Your task to perform on an android device: toggle sleep mode Image 0: 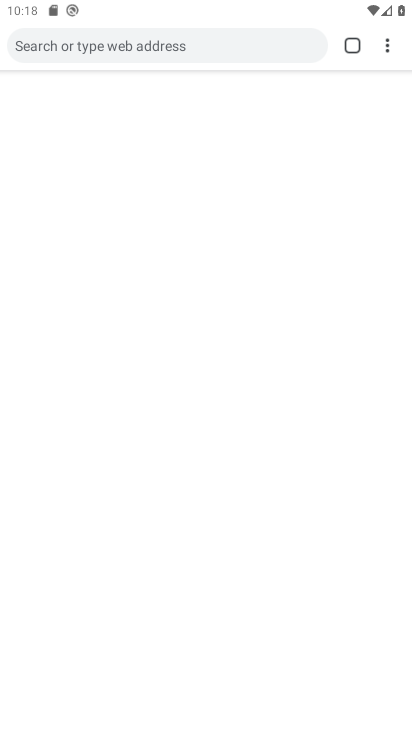
Step 0: press home button
Your task to perform on an android device: toggle sleep mode Image 1: 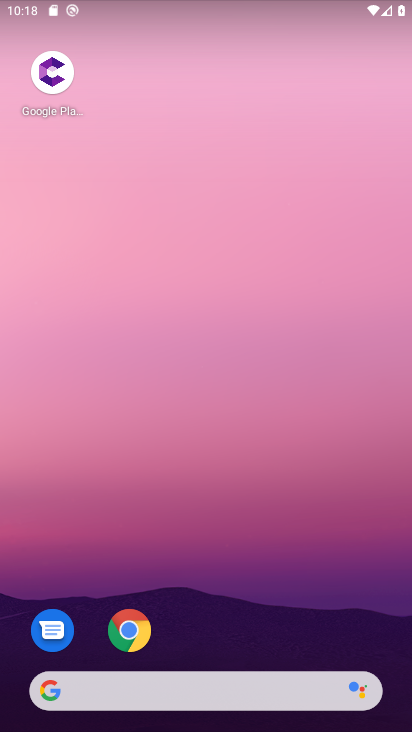
Step 1: drag from (199, 660) to (171, 69)
Your task to perform on an android device: toggle sleep mode Image 2: 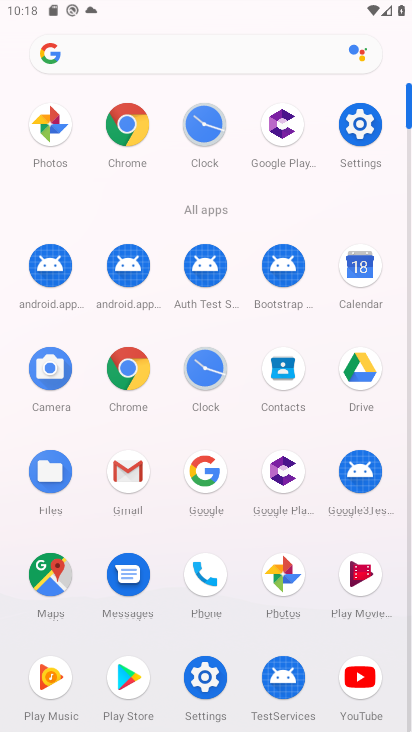
Step 2: click (369, 134)
Your task to perform on an android device: toggle sleep mode Image 3: 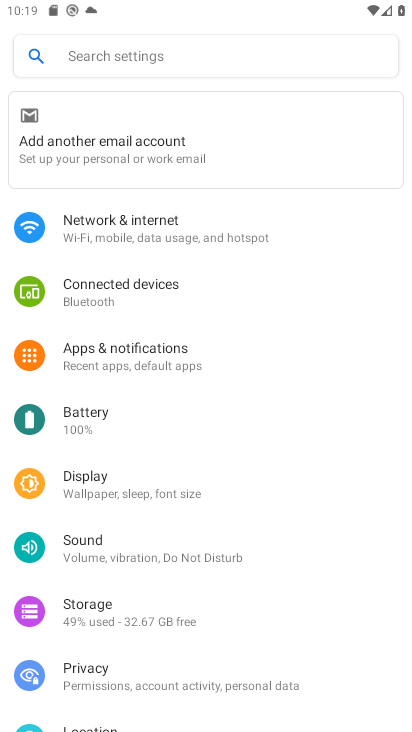
Step 3: click (80, 469)
Your task to perform on an android device: toggle sleep mode Image 4: 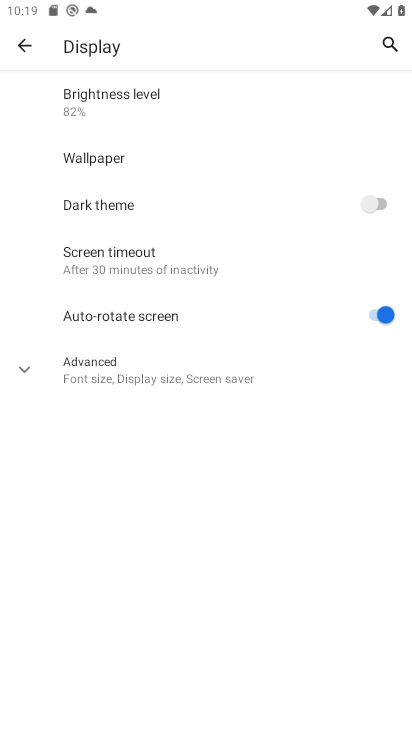
Step 4: task complete